Your task to perform on an android device: Open display settings Image 0: 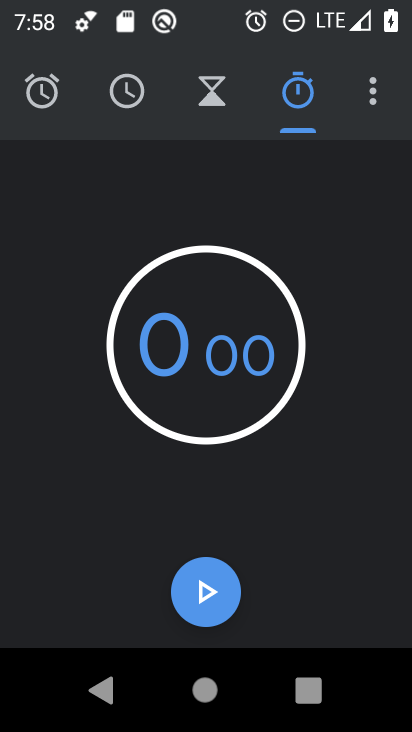
Step 0: press home button
Your task to perform on an android device: Open display settings Image 1: 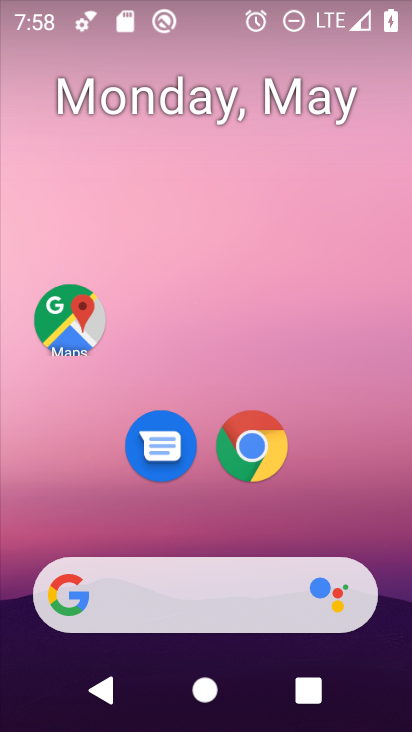
Step 1: drag from (308, 506) to (229, 152)
Your task to perform on an android device: Open display settings Image 2: 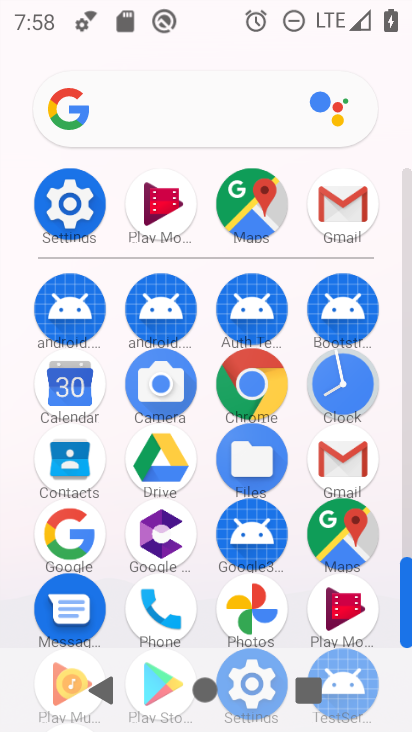
Step 2: click (62, 206)
Your task to perform on an android device: Open display settings Image 3: 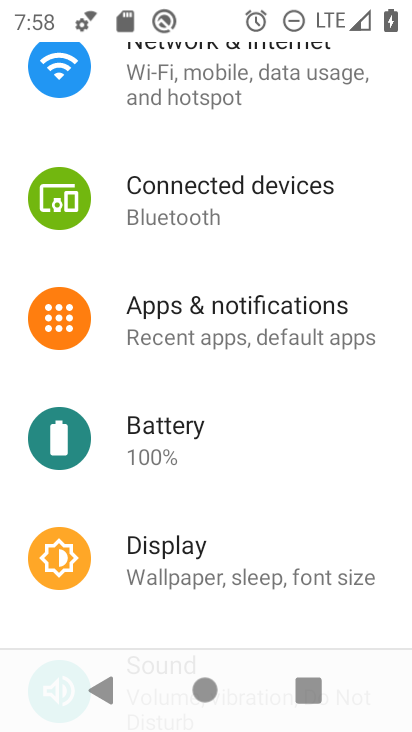
Step 3: click (177, 542)
Your task to perform on an android device: Open display settings Image 4: 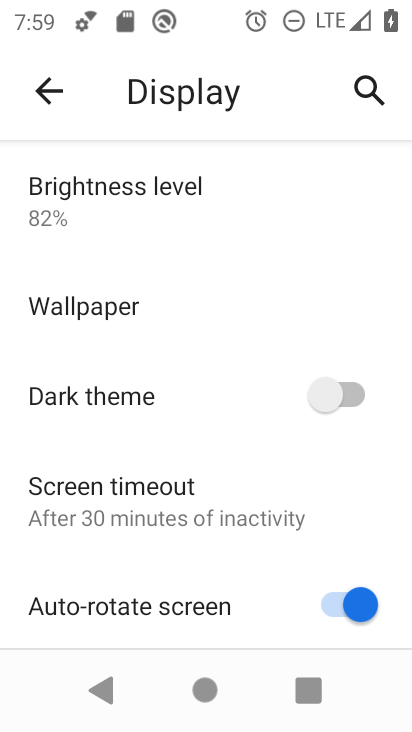
Step 4: task complete